Your task to perform on an android device: turn off improve location accuracy Image 0: 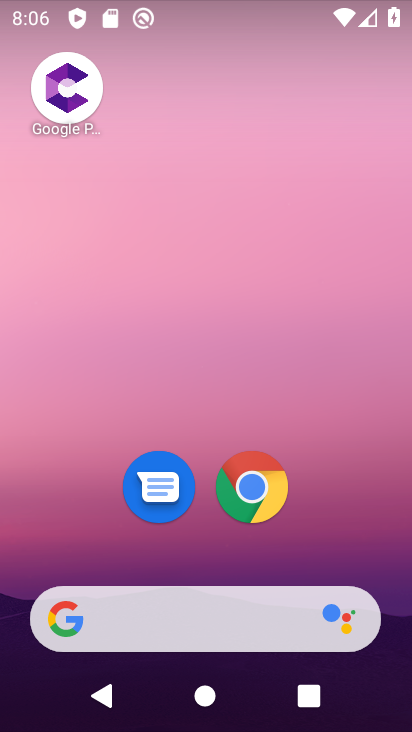
Step 0: drag from (214, 557) to (255, 127)
Your task to perform on an android device: turn off improve location accuracy Image 1: 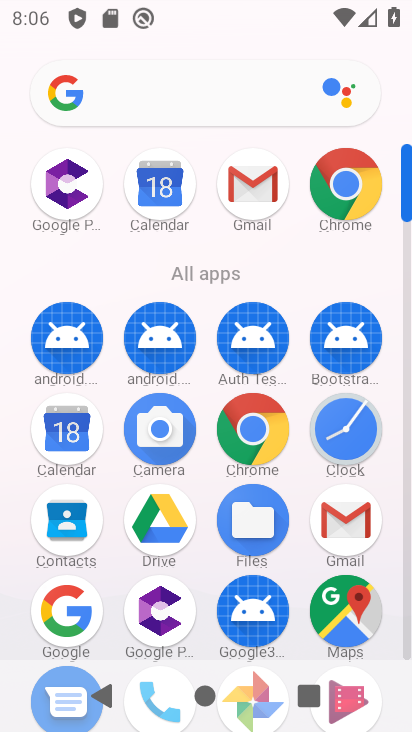
Step 1: drag from (116, 558) to (256, 198)
Your task to perform on an android device: turn off improve location accuracy Image 2: 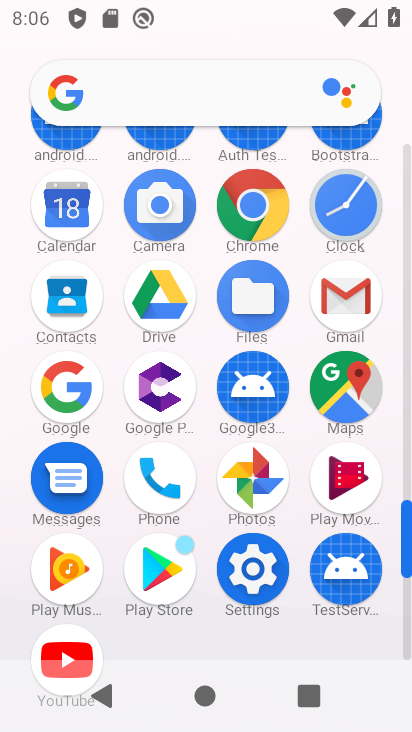
Step 2: click (239, 566)
Your task to perform on an android device: turn off improve location accuracy Image 3: 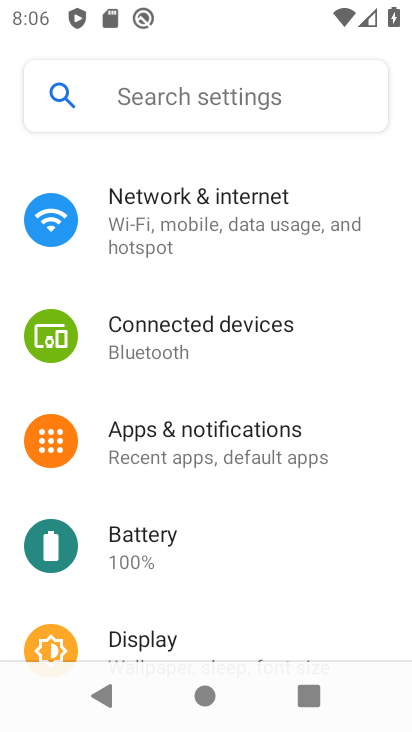
Step 3: drag from (214, 336) to (231, 261)
Your task to perform on an android device: turn off improve location accuracy Image 4: 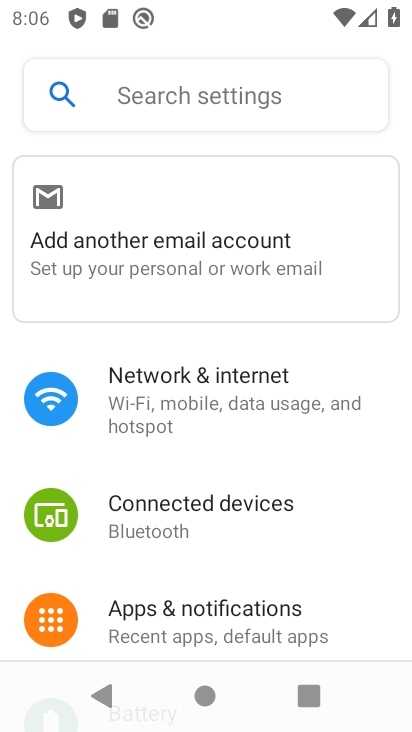
Step 4: drag from (194, 588) to (240, 243)
Your task to perform on an android device: turn off improve location accuracy Image 5: 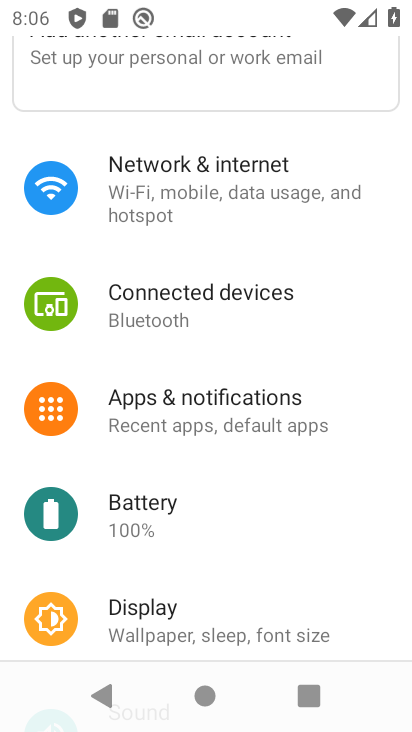
Step 5: drag from (195, 573) to (213, 187)
Your task to perform on an android device: turn off improve location accuracy Image 6: 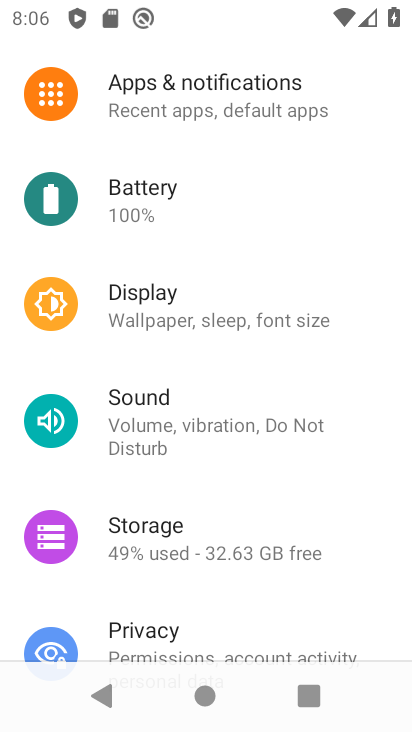
Step 6: drag from (216, 579) to (213, 201)
Your task to perform on an android device: turn off improve location accuracy Image 7: 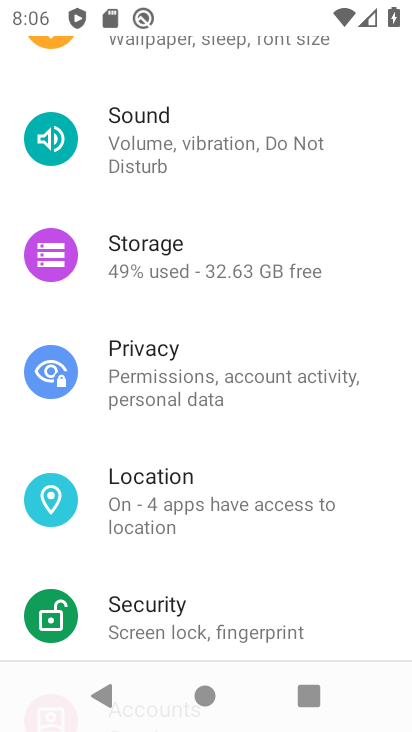
Step 7: click (200, 467)
Your task to perform on an android device: turn off improve location accuracy Image 8: 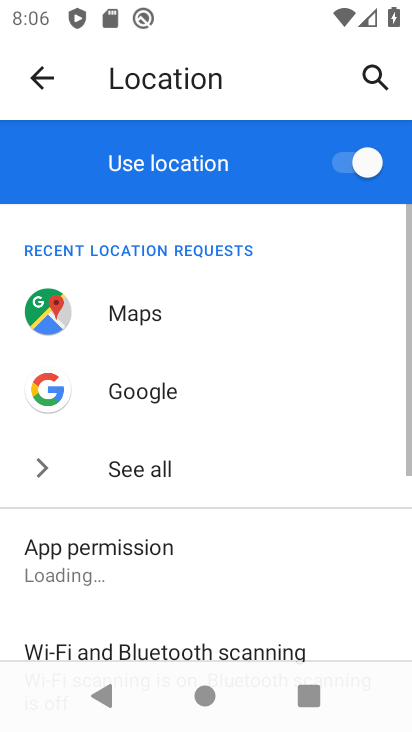
Step 8: drag from (184, 523) to (233, 176)
Your task to perform on an android device: turn off improve location accuracy Image 9: 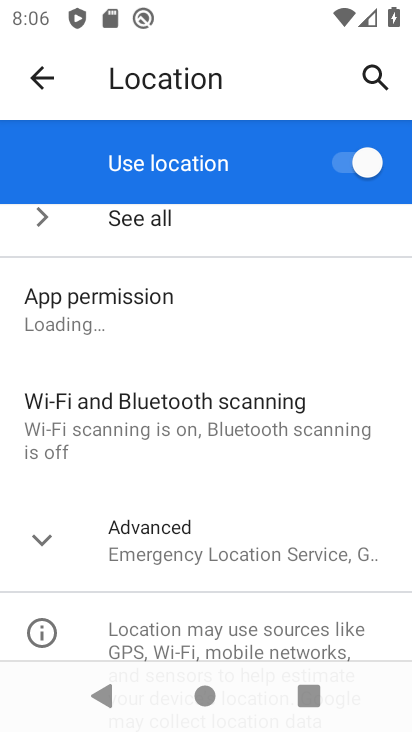
Step 9: click (221, 550)
Your task to perform on an android device: turn off improve location accuracy Image 10: 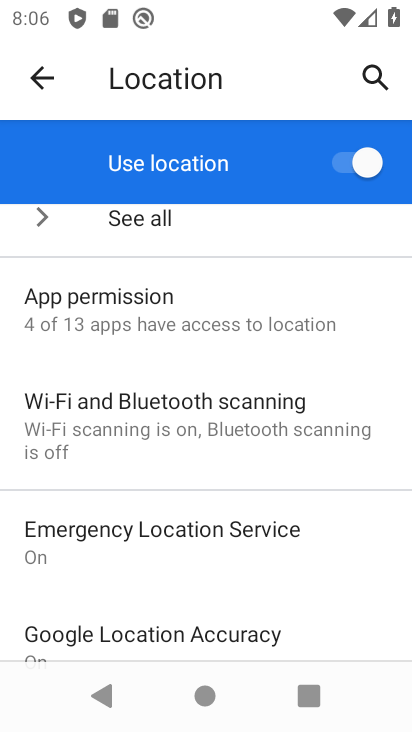
Step 10: drag from (150, 589) to (177, 401)
Your task to perform on an android device: turn off improve location accuracy Image 11: 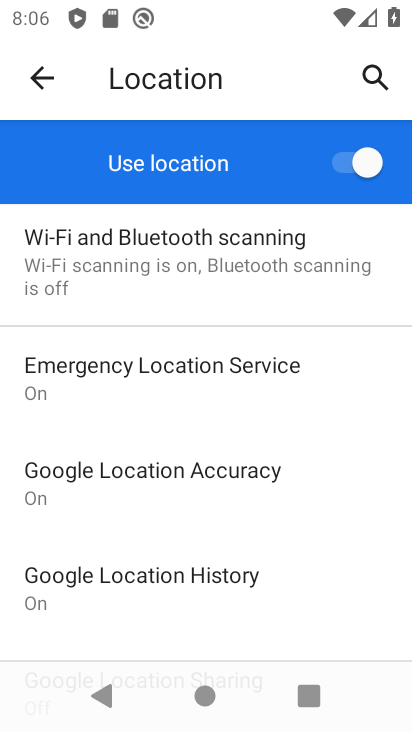
Step 11: click (159, 491)
Your task to perform on an android device: turn off improve location accuracy Image 12: 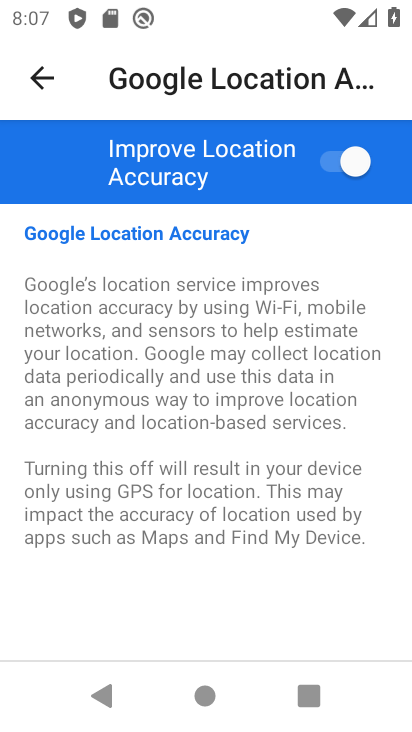
Step 12: click (324, 169)
Your task to perform on an android device: turn off improve location accuracy Image 13: 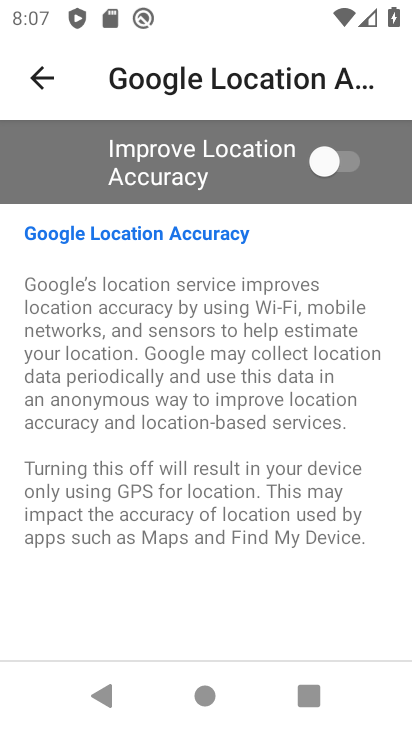
Step 13: task complete